Your task to perform on an android device: empty trash in the gmail app Image 0: 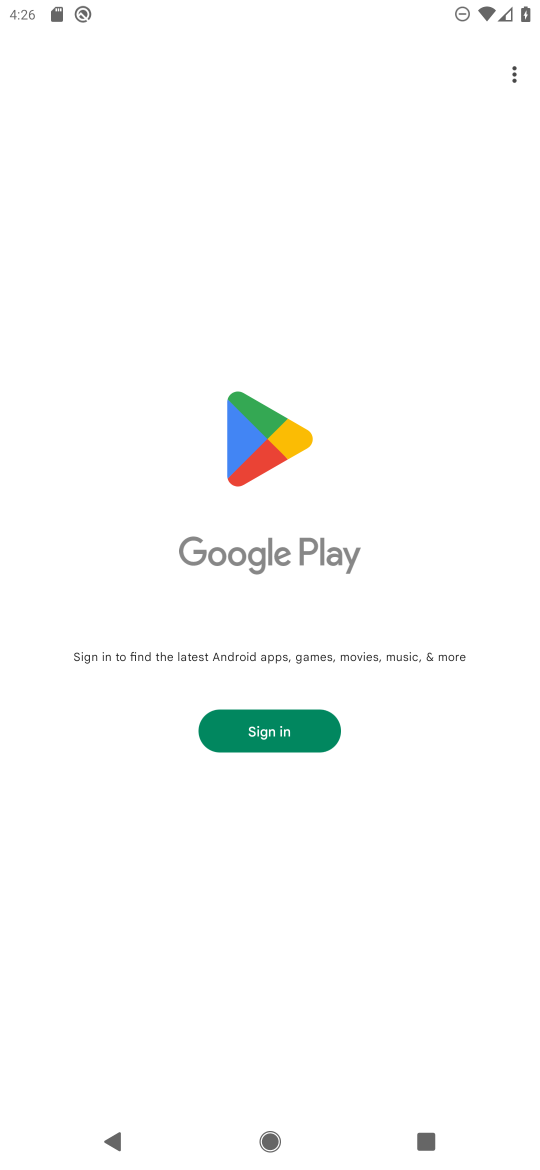
Step 0: press home button
Your task to perform on an android device: empty trash in the gmail app Image 1: 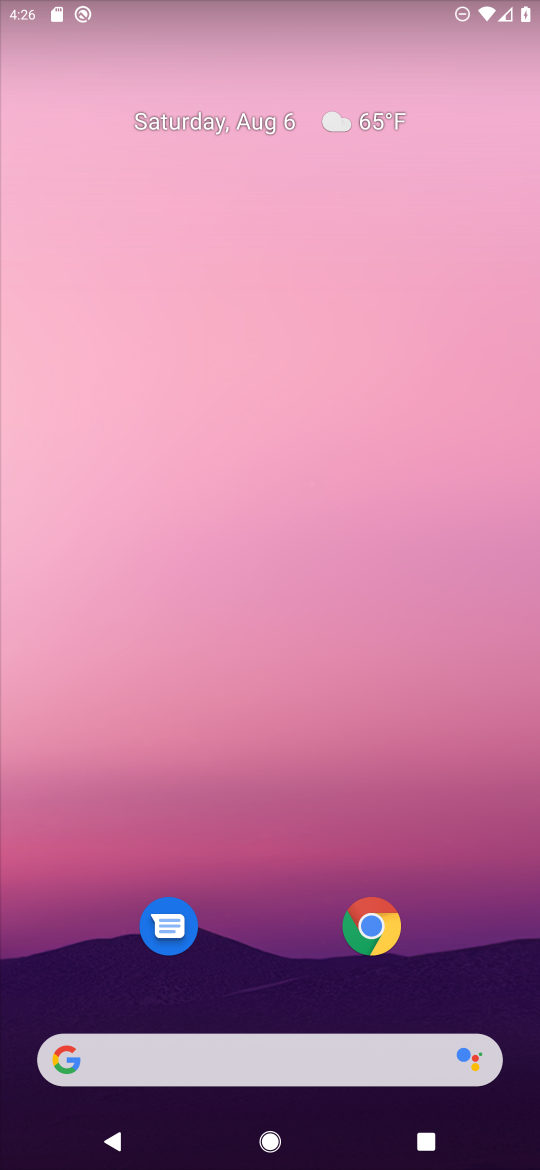
Step 1: drag from (273, 929) to (324, 320)
Your task to perform on an android device: empty trash in the gmail app Image 2: 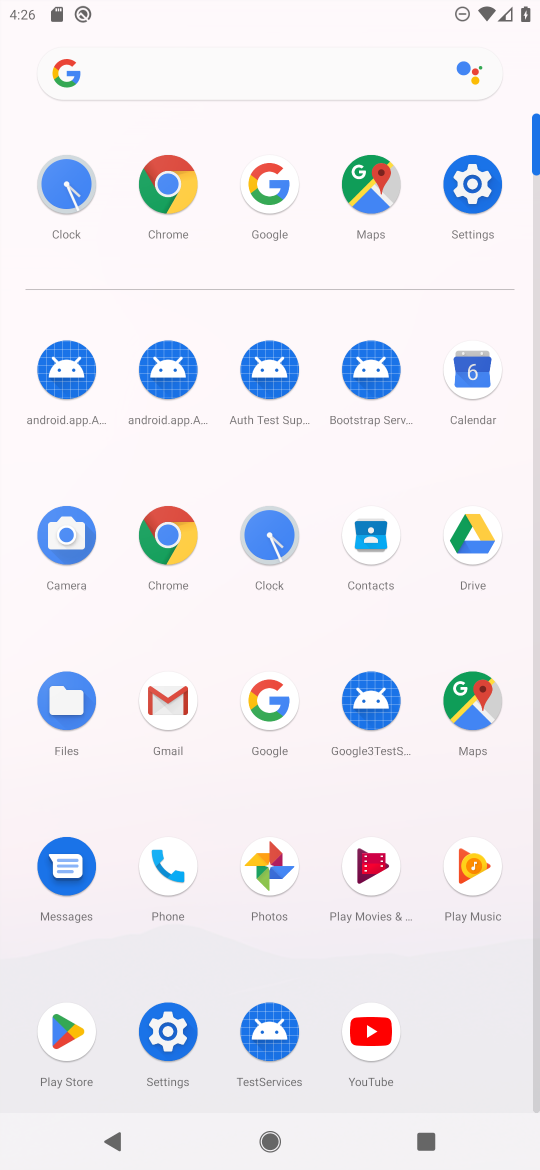
Step 2: click (182, 703)
Your task to perform on an android device: empty trash in the gmail app Image 3: 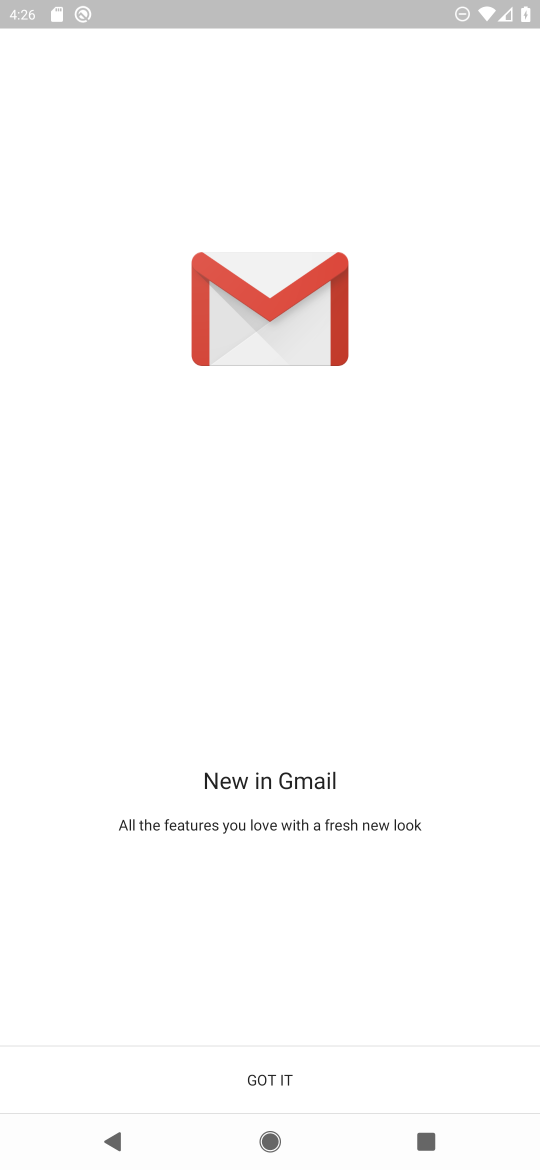
Step 3: click (305, 1071)
Your task to perform on an android device: empty trash in the gmail app Image 4: 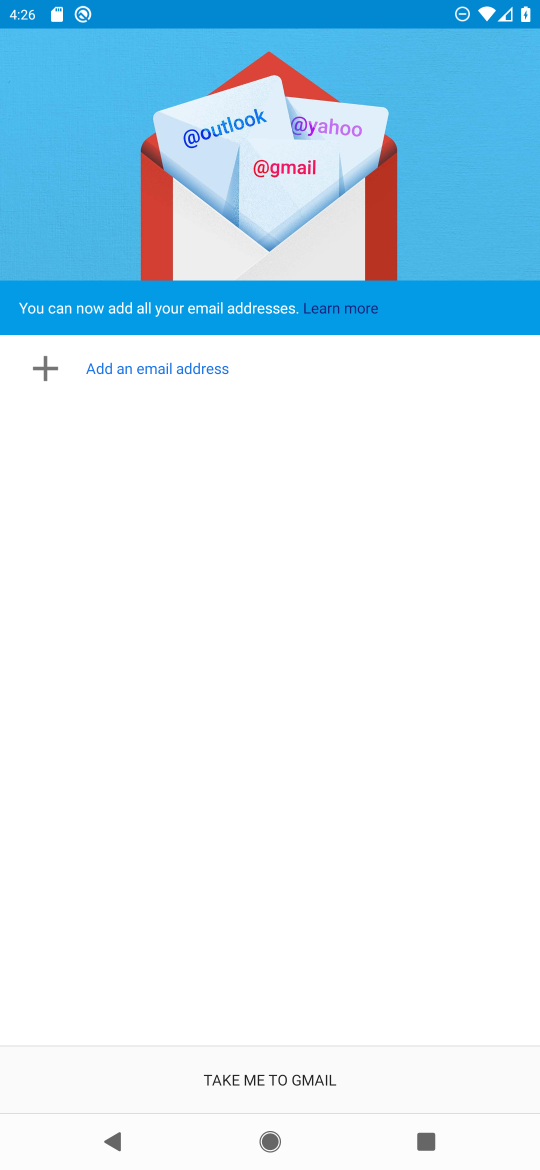
Step 4: click (342, 1068)
Your task to perform on an android device: empty trash in the gmail app Image 5: 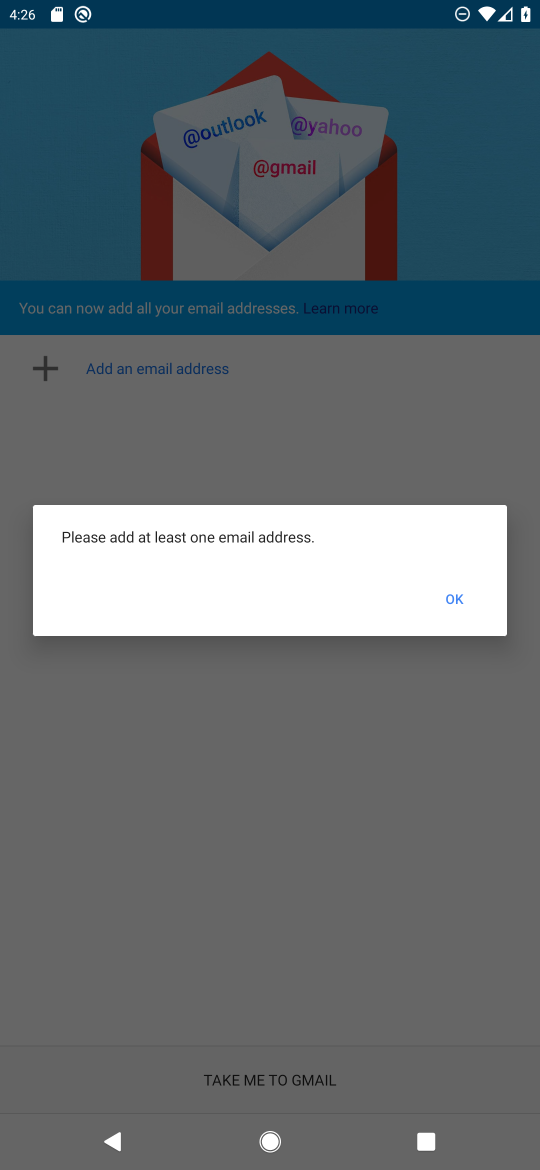
Step 5: click (450, 590)
Your task to perform on an android device: empty trash in the gmail app Image 6: 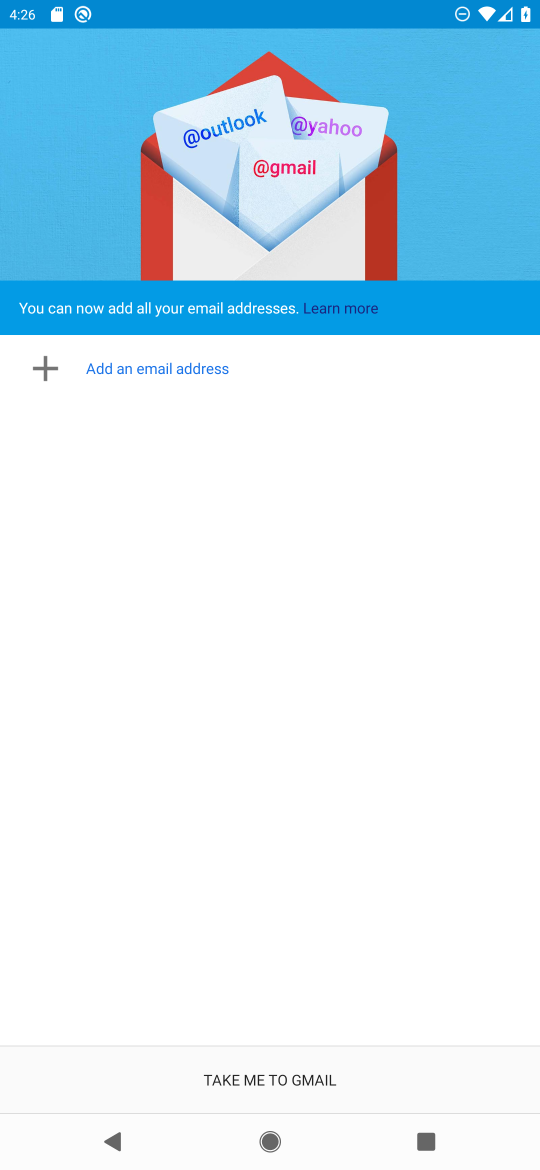
Step 6: task complete